Your task to perform on an android device: open a bookmark in the chrome app Image 0: 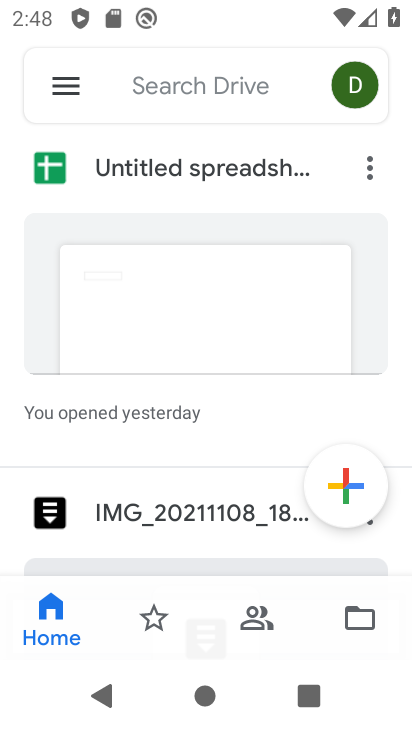
Step 0: press home button
Your task to perform on an android device: open a bookmark in the chrome app Image 1: 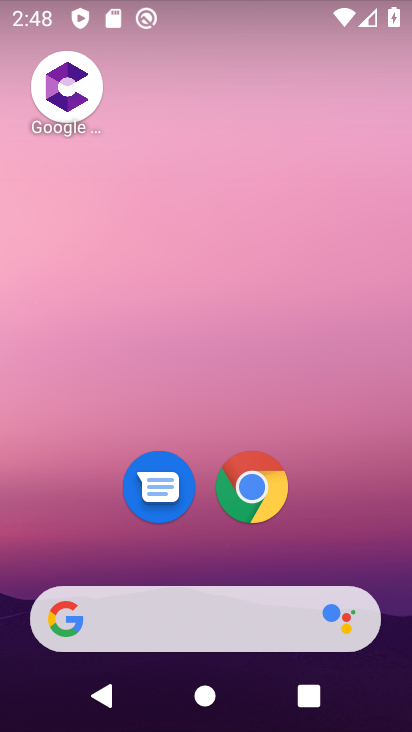
Step 1: drag from (366, 533) to (354, 185)
Your task to perform on an android device: open a bookmark in the chrome app Image 2: 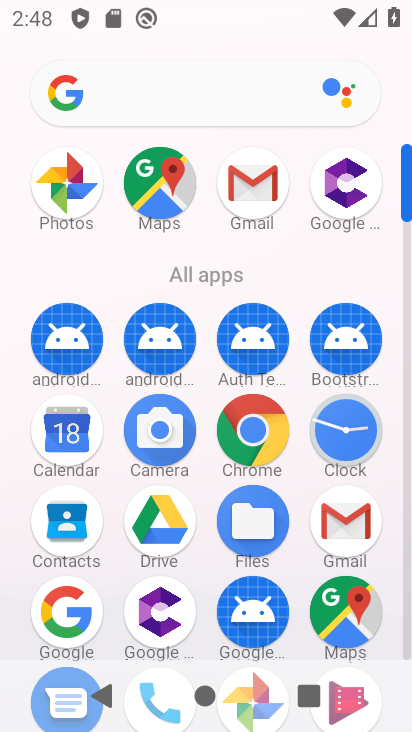
Step 2: click (265, 444)
Your task to perform on an android device: open a bookmark in the chrome app Image 3: 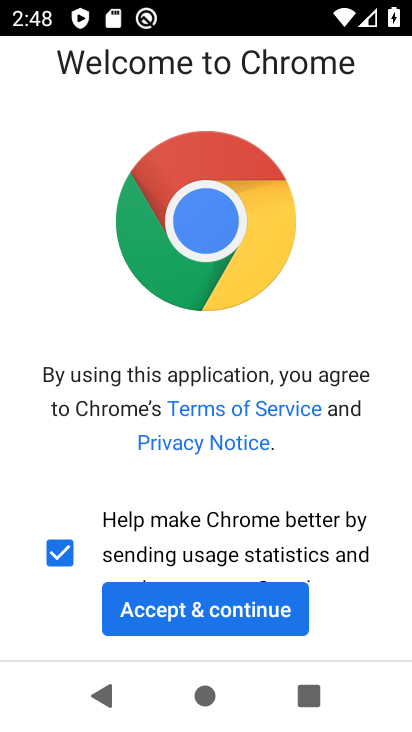
Step 3: click (253, 624)
Your task to perform on an android device: open a bookmark in the chrome app Image 4: 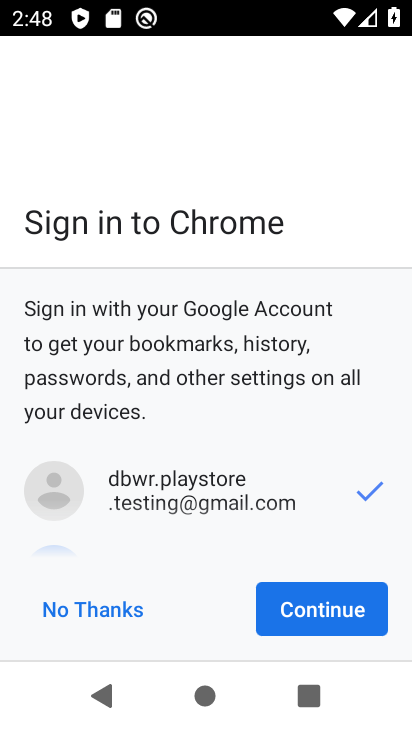
Step 4: click (309, 620)
Your task to perform on an android device: open a bookmark in the chrome app Image 5: 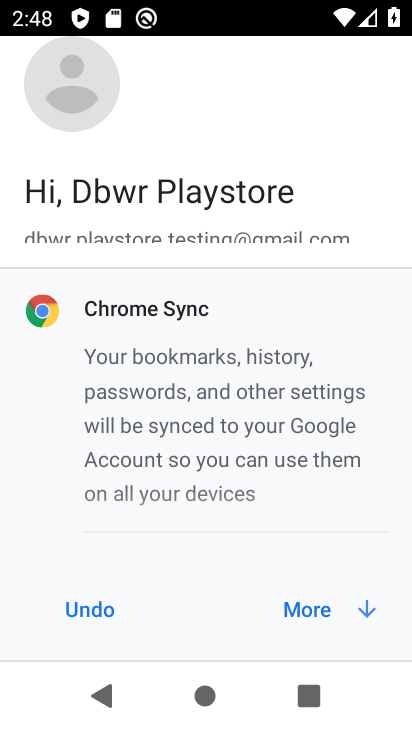
Step 5: click (308, 620)
Your task to perform on an android device: open a bookmark in the chrome app Image 6: 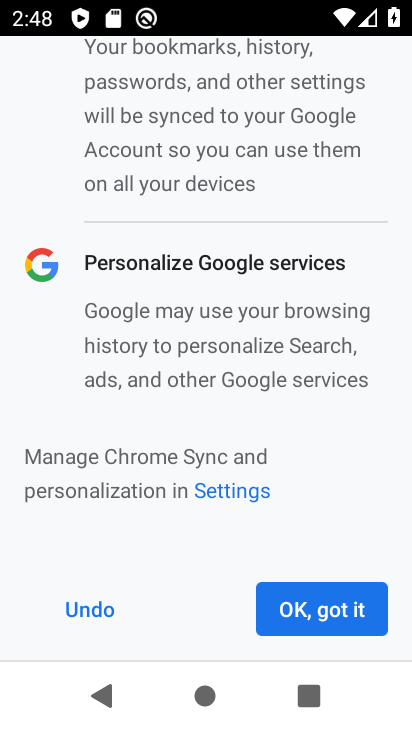
Step 6: click (307, 621)
Your task to perform on an android device: open a bookmark in the chrome app Image 7: 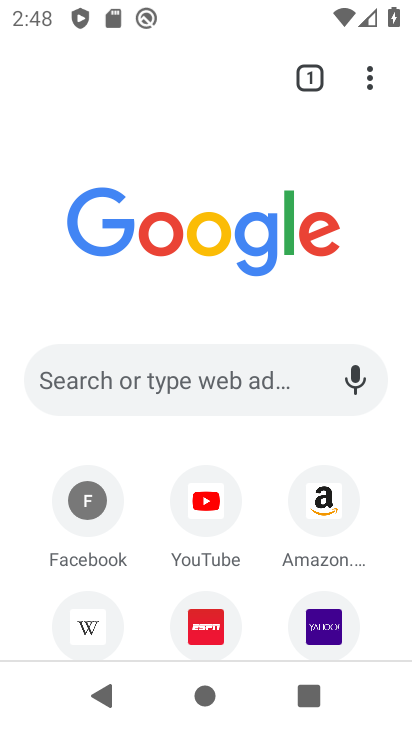
Step 7: click (372, 86)
Your task to perform on an android device: open a bookmark in the chrome app Image 8: 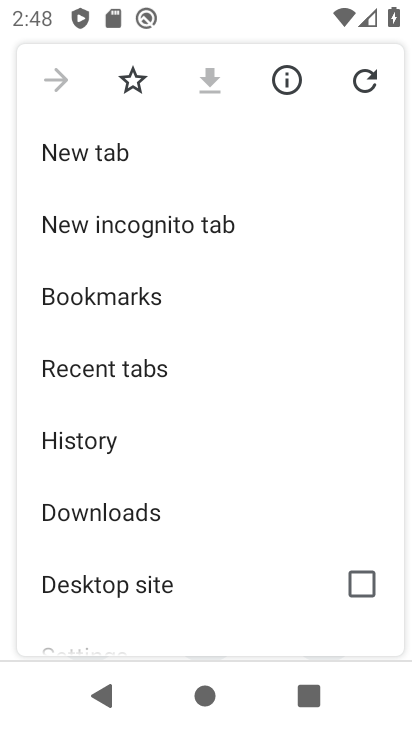
Step 8: drag from (290, 494) to (314, 390)
Your task to perform on an android device: open a bookmark in the chrome app Image 9: 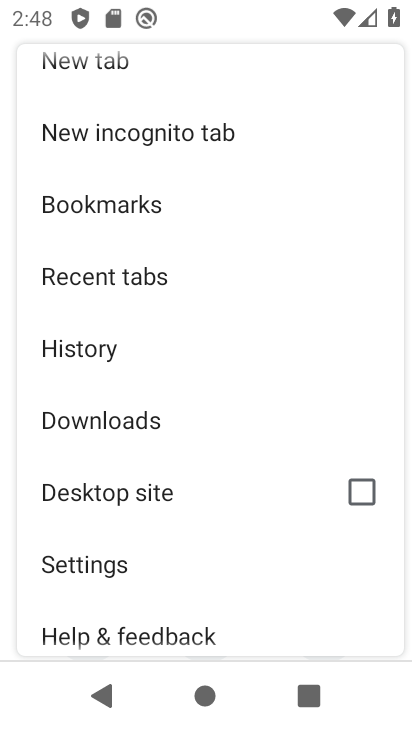
Step 9: drag from (285, 565) to (281, 439)
Your task to perform on an android device: open a bookmark in the chrome app Image 10: 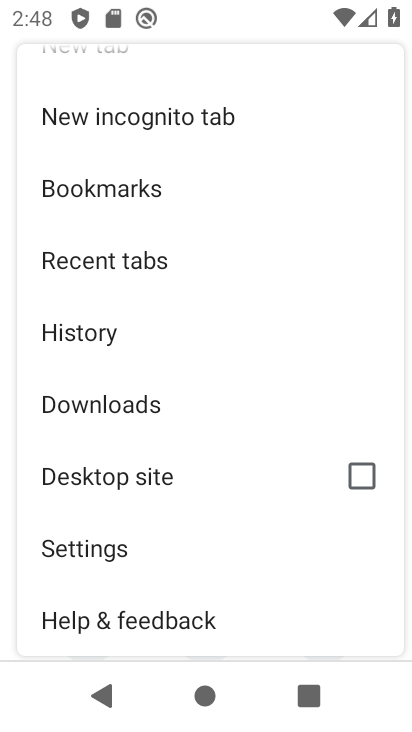
Step 10: drag from (290, 272) to (280, 387)
Your task to perform on an android device: open a bookmark in the chrome app Image 11: 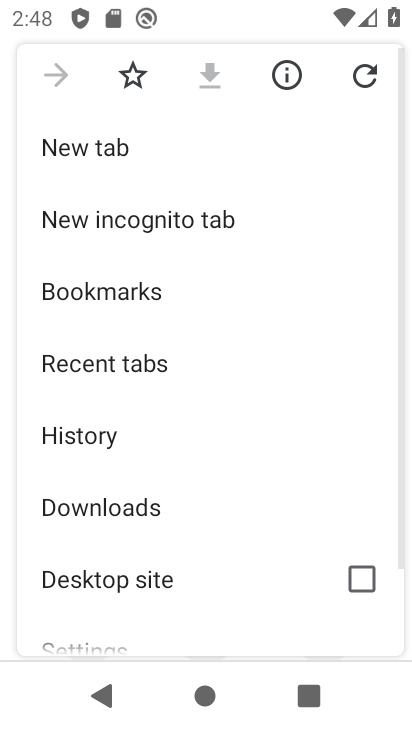
Step 11: drag from (294, 221) to (270, 374)
Your task to perform on an android device: open a bookmark in the chrome app Image 12: 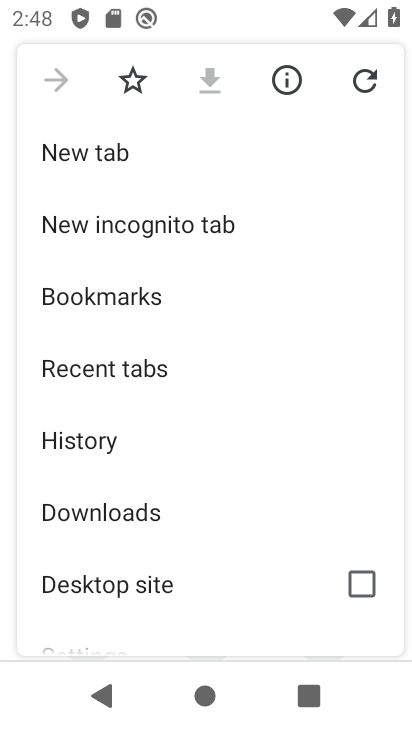
Step 12: click (113, 309)
Your task to perform on an android device: open a bookmark in the chrome app Image 13: 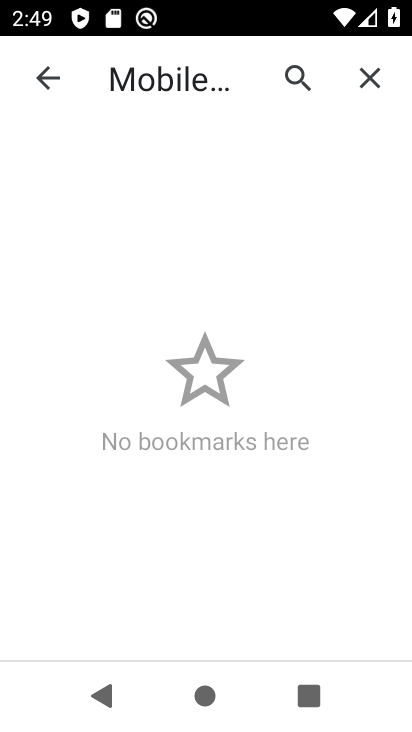
Step 13: task complete